Your task to perform on an android device: Turn off the flashlight Image 0: 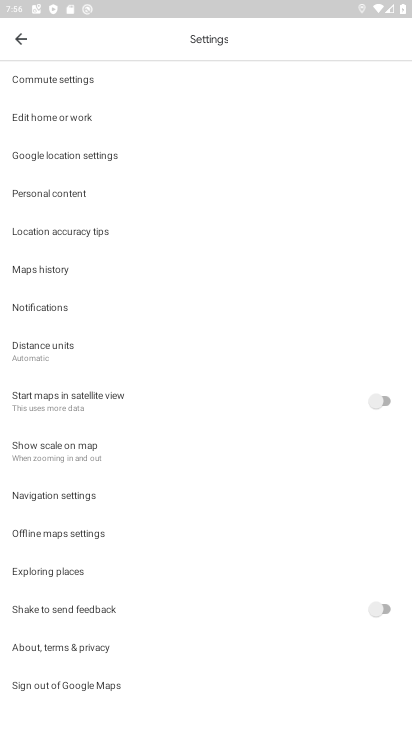
Step 0: press home button
Your task to perform on an android device: Turn off the flashlight Image 1: 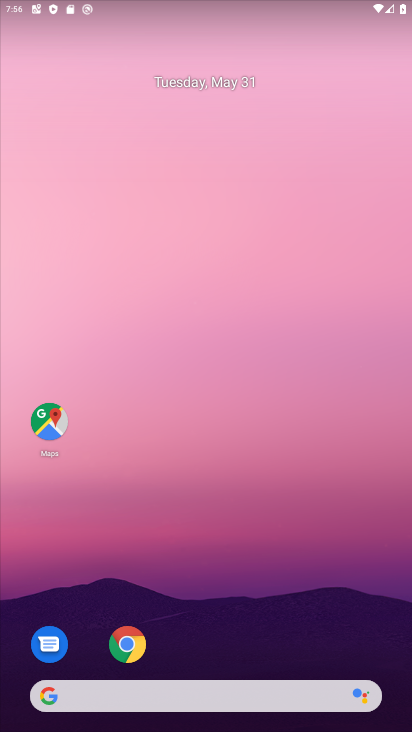
Step 1: task complete